Your task to perform on an android device: Go to display settings Image 0: 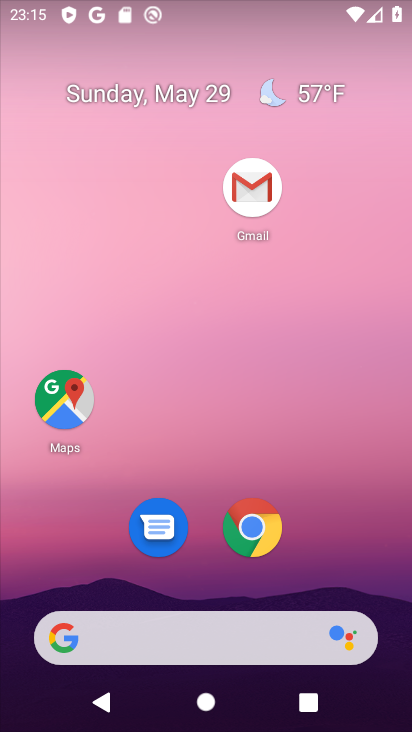
Step 0: drag from (325, 558) to (343, 45)
Your task to perform on an android device: Go to display settings Image 1: 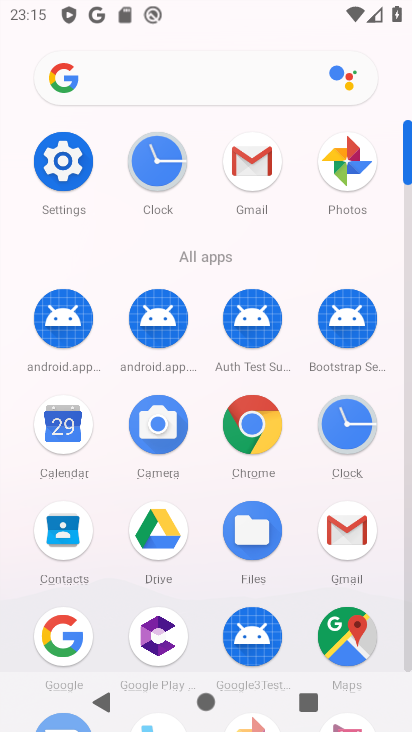
Step 1: click (62, 159)
Your task to perform on an android device: Go to display settings Image 2: 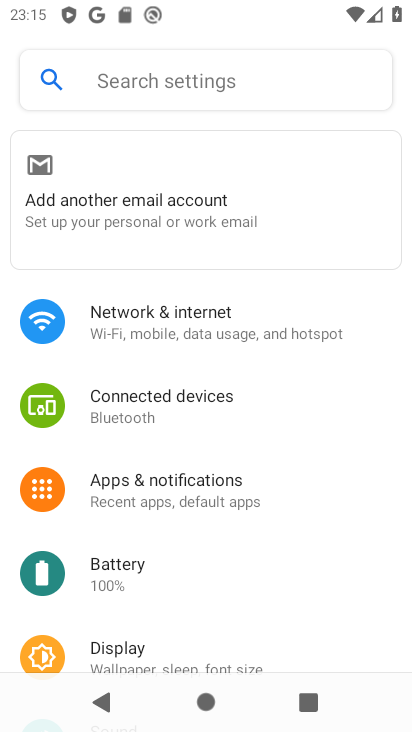
Step 2: drag from (157, 600) to (178, 415)
Your task to perform on an android device: Go to display settings Image 3: 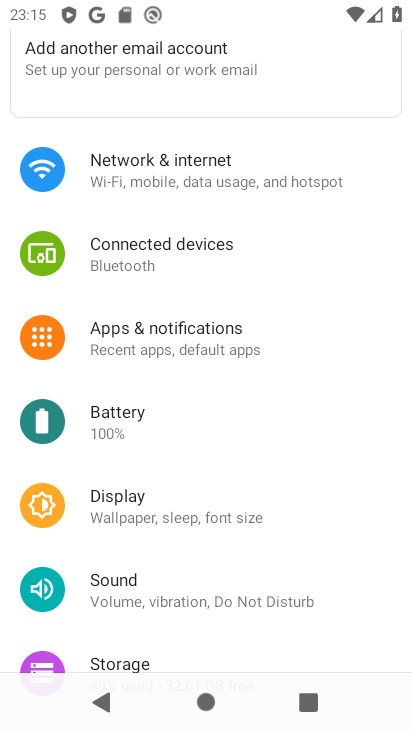
Step 3: click (147, 516)
Your task to perform on an android device: Go to display settings Image 4: 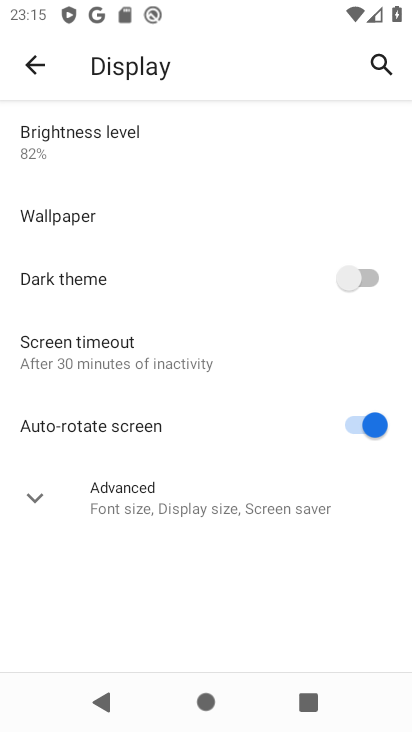
Step 4: task complete